Your task to perform on an android device: Go to calendar. Show me events next week Image 0: 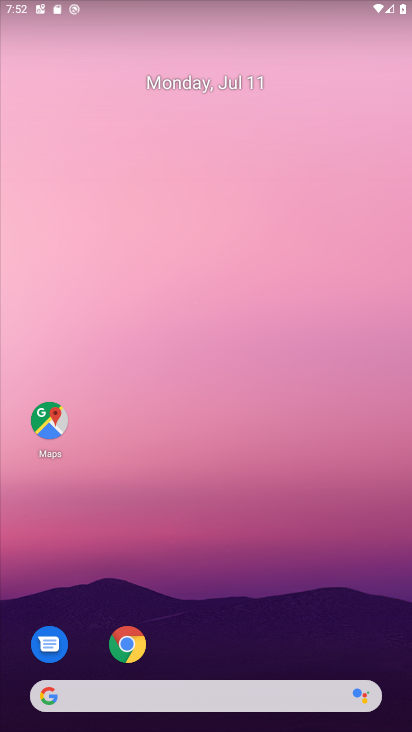
Step 0: drag from (196, 688) to (157, 308)
Your task to perform on an android device: Go to calendar. Show me events next week Image 1: 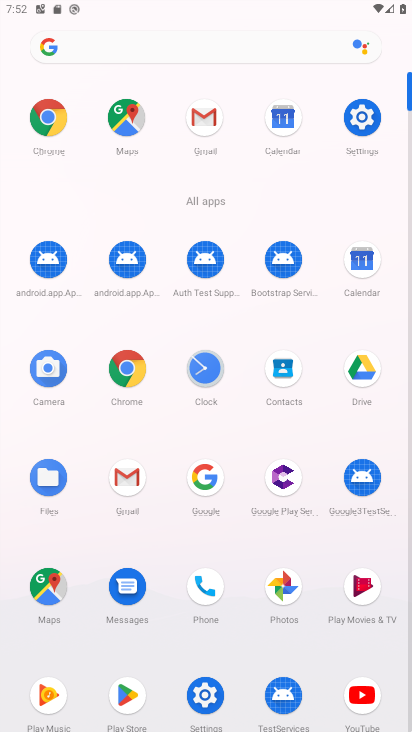
Step 1: click (347, 269)
Your task to perform on an android device: Go to calendar. Show me events next week Image 2: 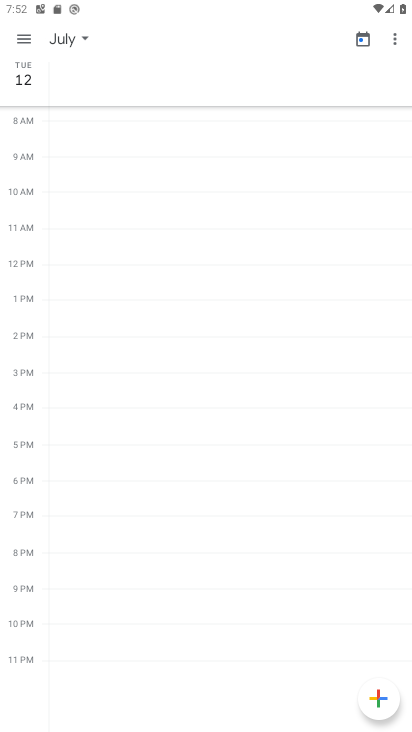
Step 2: click (14, 30)
Your task to perform on an android device: Go to calendar. Show me events next week Image 3: 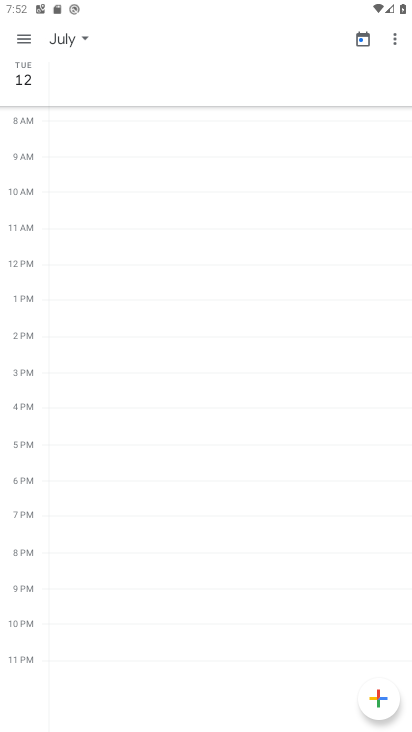
Step 3: click (25, 36)
Your task to perform on an android device: Go to calendar. Show me events next week Image 4: 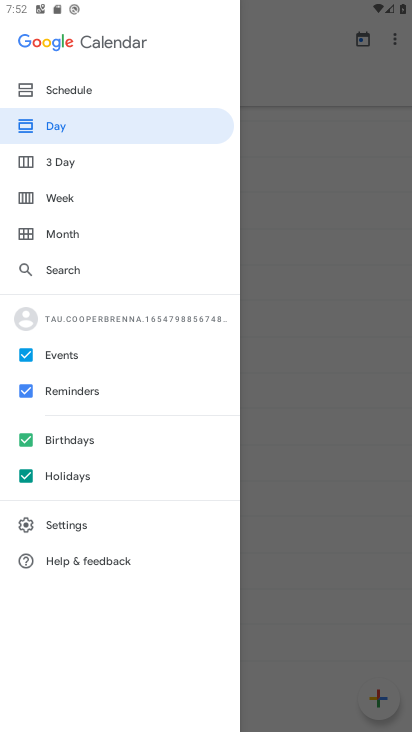
Step 4: click (67, 207)
Your task to perform on an android device: Go to calendar. Show me events next week Image 5: 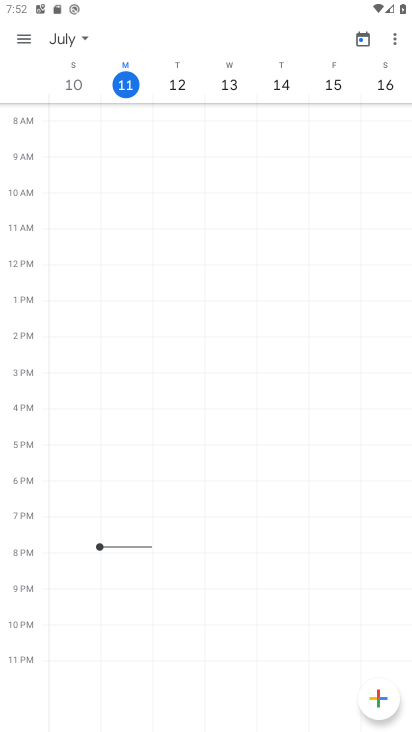
Step 5: task complete